Your task to perform on an android device: remove spam from my inbox in the gmail app Image 0: 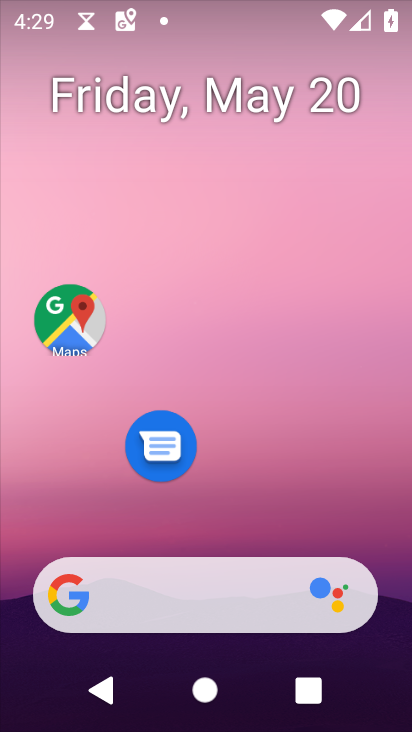
Step 0: drag from (183, 472) to (256, 32)
Your task to perform on an android device: remove spam from my inbox in the gmail app Image 1: 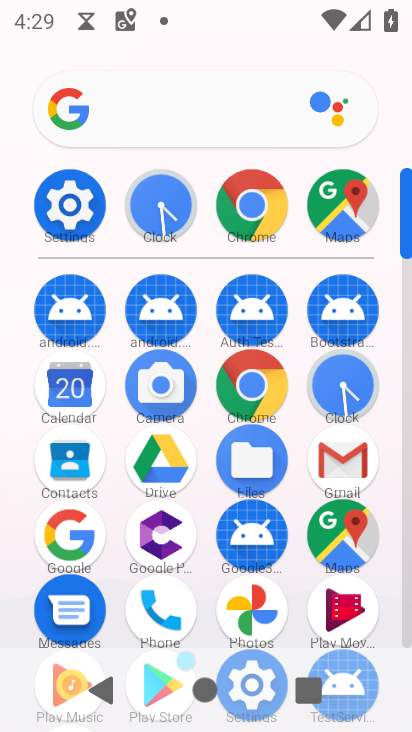
Step 1: click (334, 469)
Your task to perform on an android device: remove spam from my inbox in the gmail app Image 2: 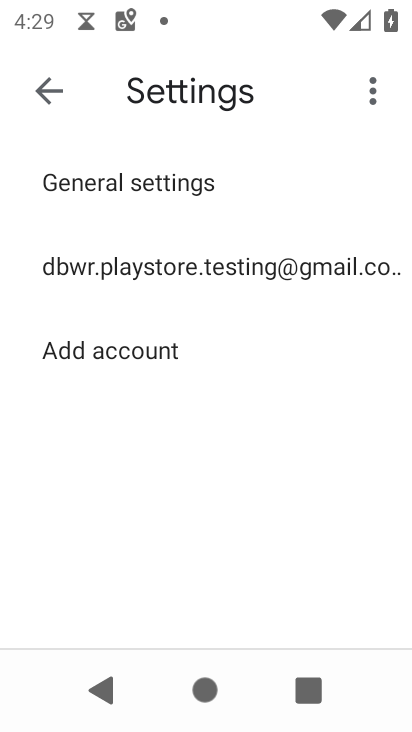
Step 2: click (53, 85)
Your task to perform on an android device: remove spam from my inbox in the gmail app Image 3: 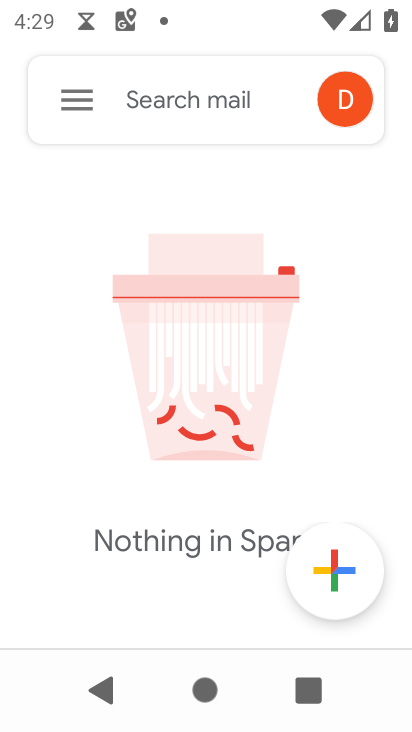
Step 3: click (63, 113)
Your task to perform on an android device: remove spam from my inbox in the gmail app Image 4: 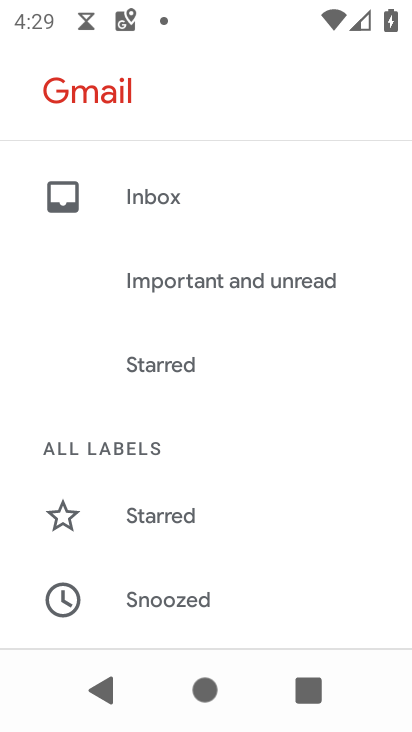
Step 4: drag from (172, 533) to (247, 67)
Your task to perform on an android device: remove spam from my inbox in the gmail app Image 5: 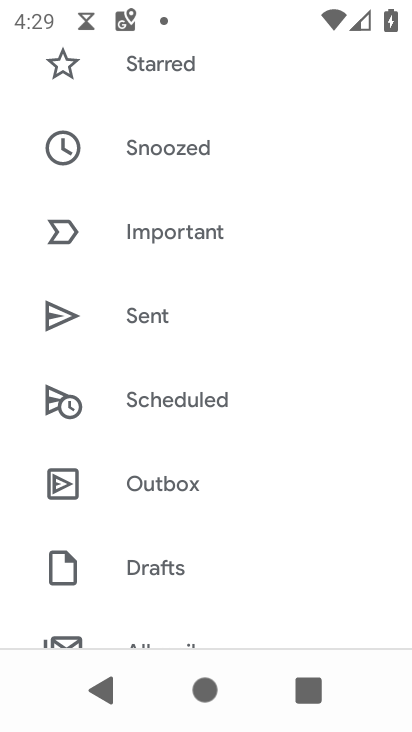
Step 5: drag from (164, 554) to (219, 218)
Your task to perform on an android device: remove spam from my inbox in the gmail app Image 6: 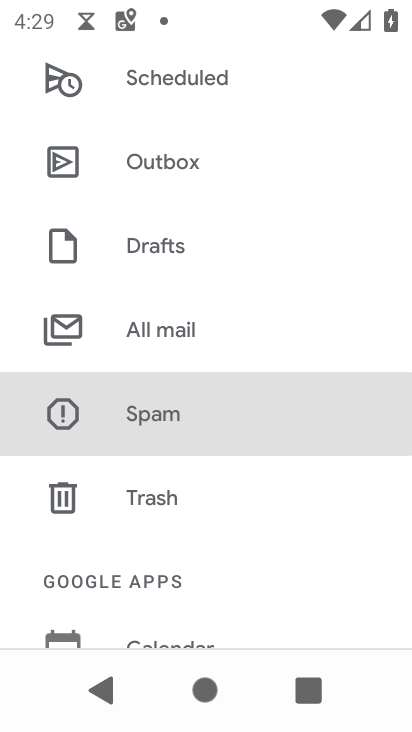
Step 6: drag from (188, 444) to (209, 309)
Your task to perform on an android device: remove spam from my inbox in the gmail app Image 7: 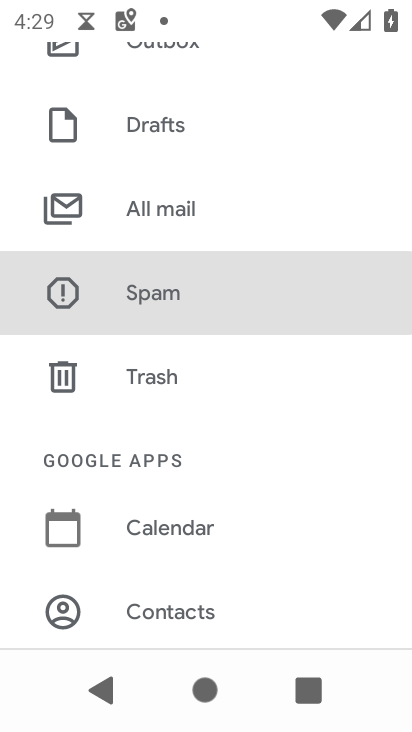
Step 7: click (176, 304)
Your task to perform on an android device: remove spam from my inbox in the gmail app Image 8: 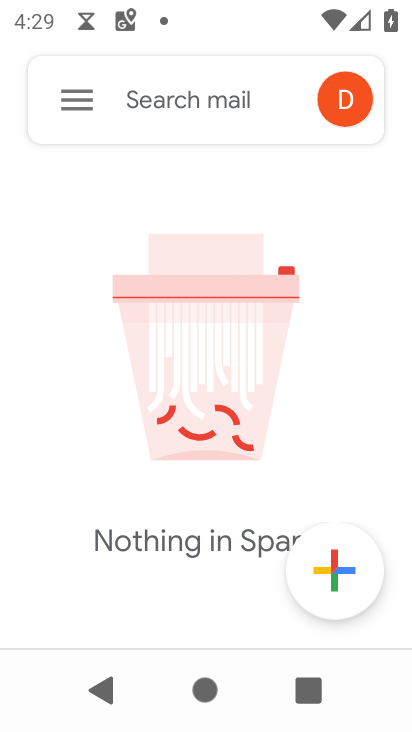
Step 8: task complete